Your task to perform on an android device: Turn off the flashlight Image 0: 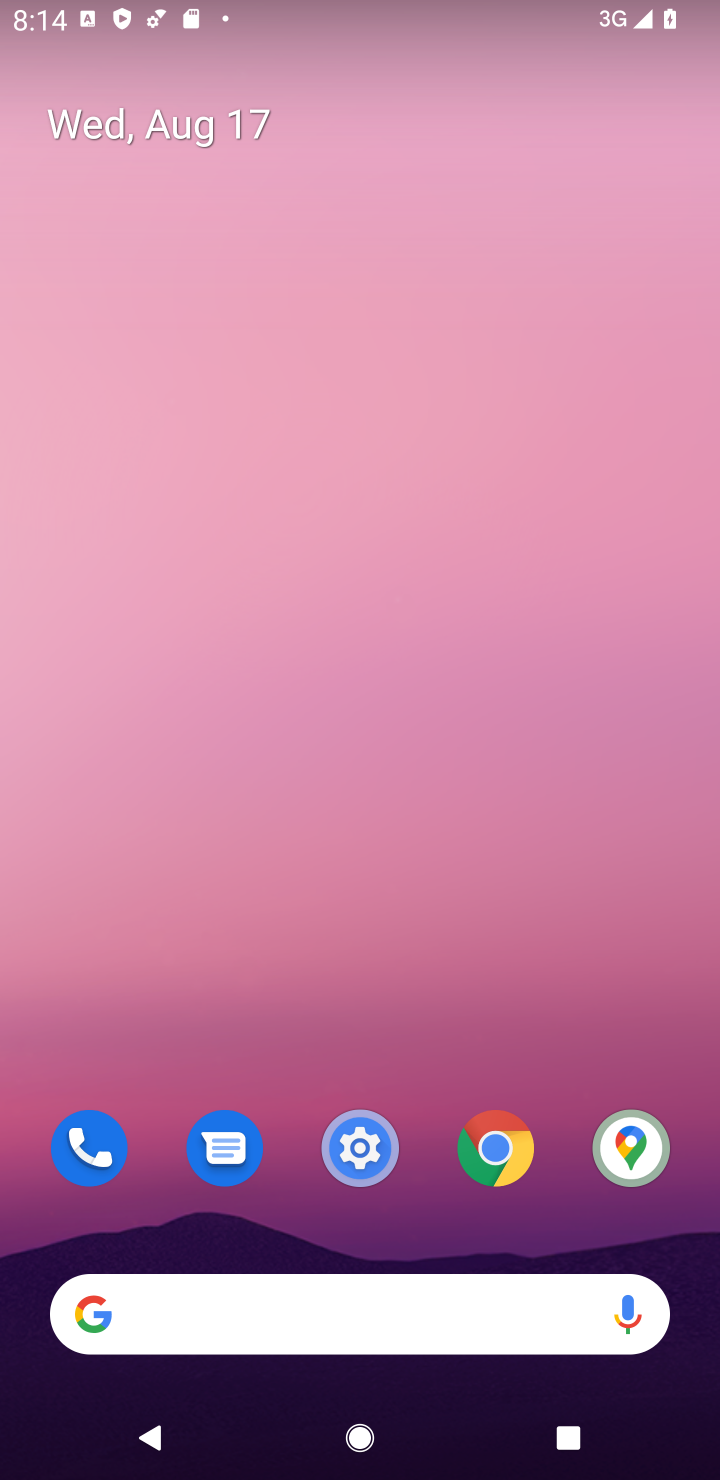
Step 0: drag from (373, 25) to (360, 1154)
Your task to perform on an android device: Turn off the flashlight Image 1: 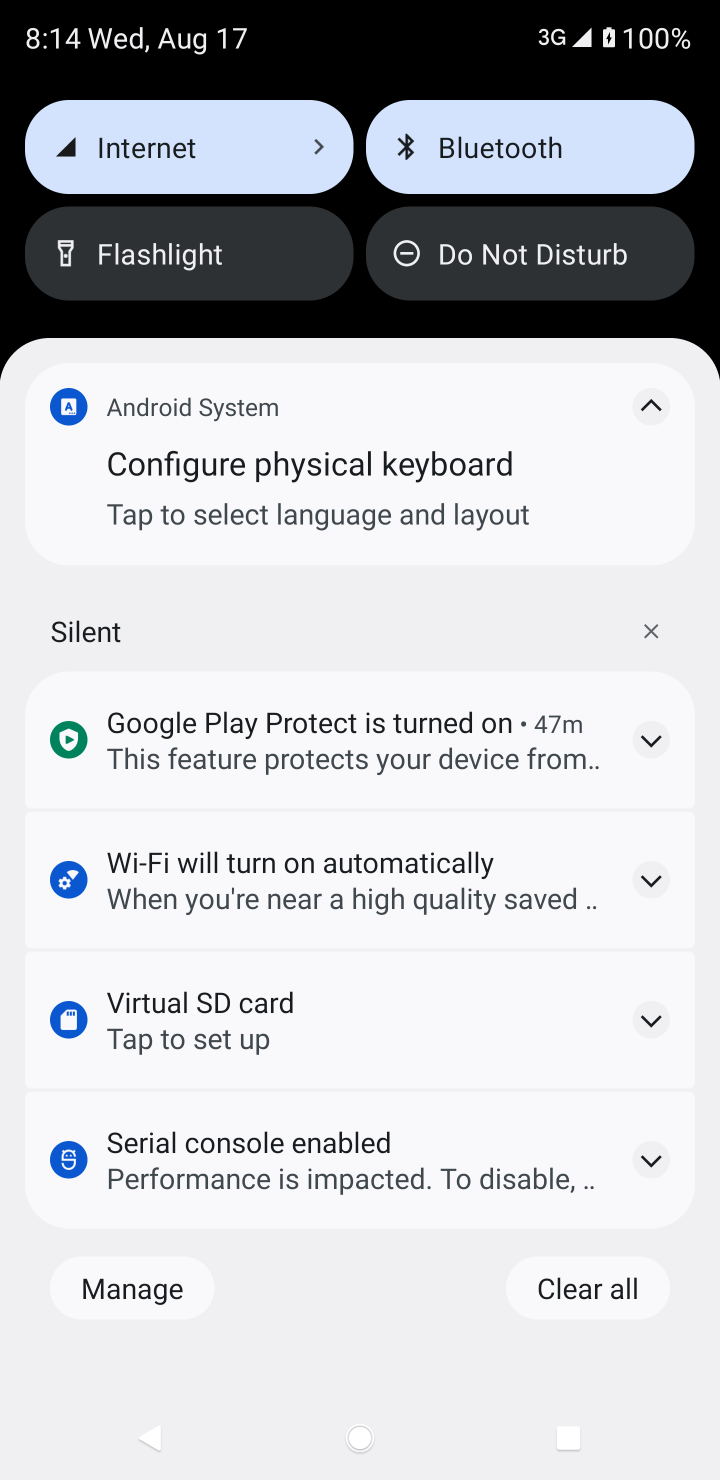
Step 1: click (187, 268)
Your task to perform on an android device: Turn off the flashlight Image 2: 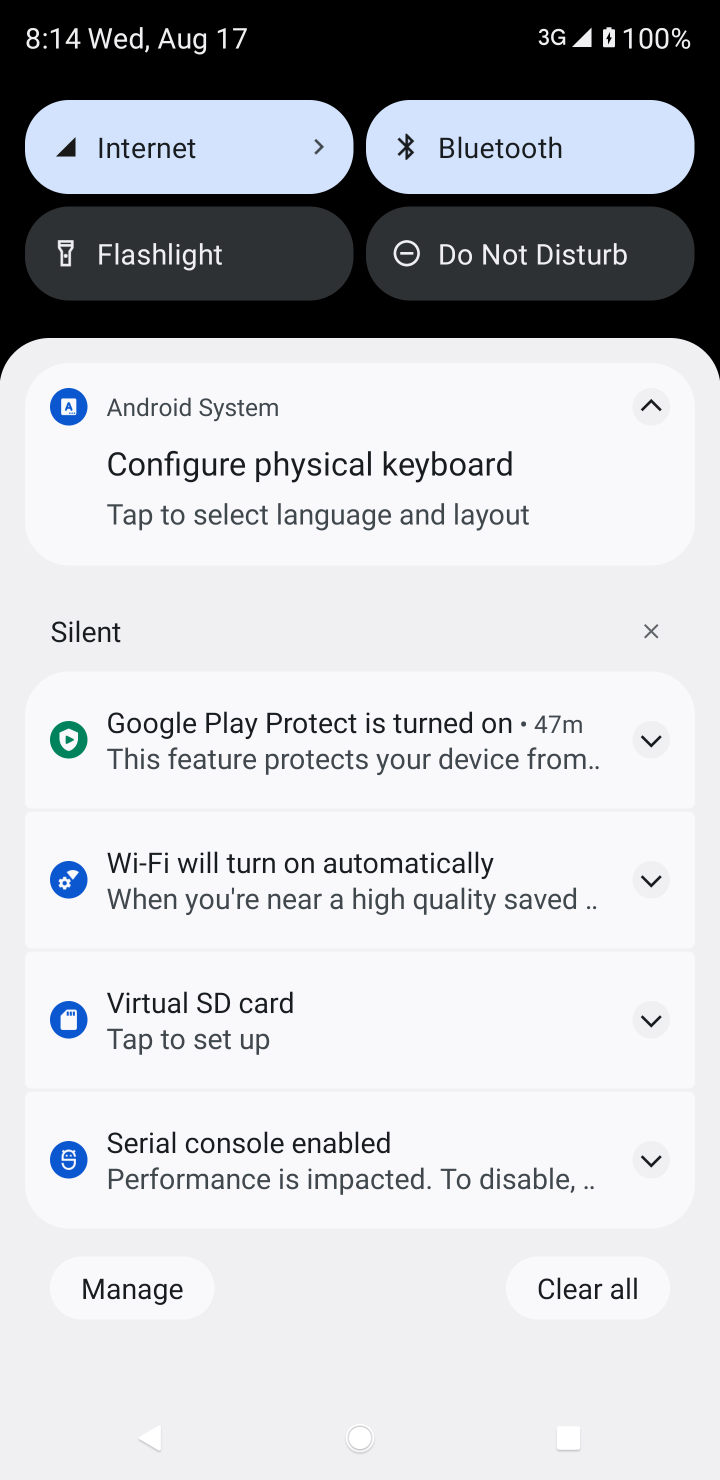
Step 2: task complete